Your task to perform on an android device: manage bookmarks in the chrome app Image 0: 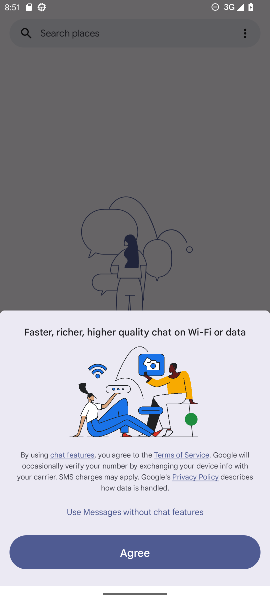
Step 0: press back button
Your task to perform on an android device: manage bookmarks in the chrome app Image 1: 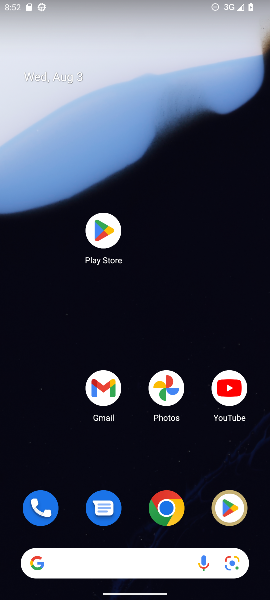
Step 1: click (165, 500)
Your task to perform on an android device: manage bookmarks in the chrome app Image 2: 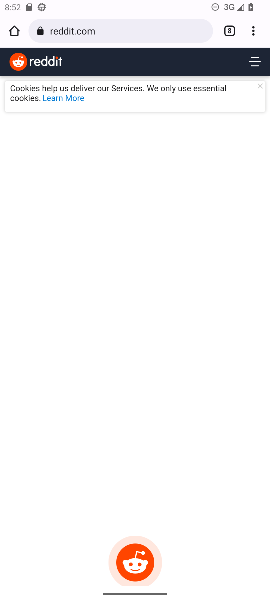
Step 2: drag from (254, 30) to (168, 183)
Your task to perform on an android device: manage bookmarks in the chrome app Image 3: 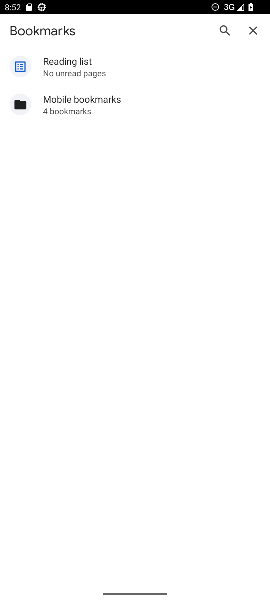
Step 3: click (55, 100)
Your task to perform on an android device: manage bookmarks in the chrome app Image 4: 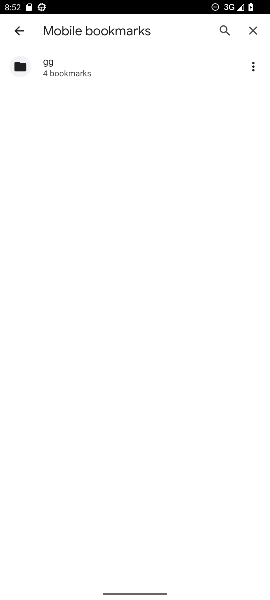
Step 4: task complete